Your task to perform on an android device: toggle javascript in the chrome app Image 0: 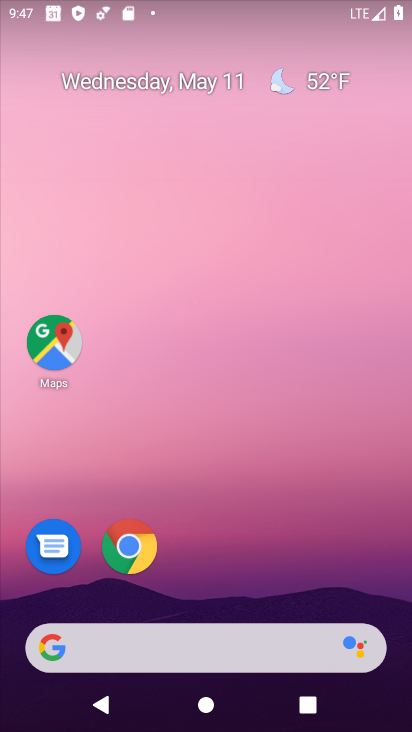
Step 0: click (131, 550)
Your task to perform on an android device: toggle javascript in the chrome app Image 1: 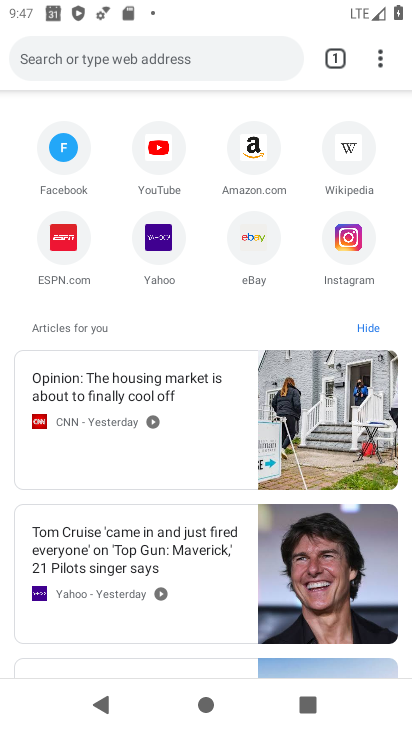
Step 1: drag from (378, 74) to (225, 556)
Your task to perform on an android device: toggle javascript in the chrome app Image 2: 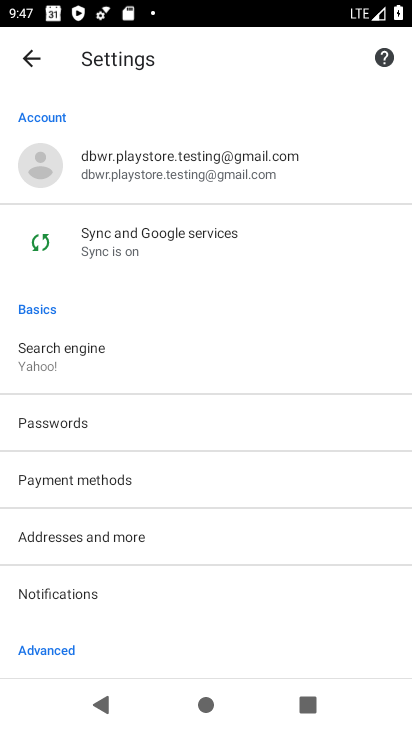
Step 2: drag from (96, 557) to (56, 0)
Your task to perform on an android device: toggle javascript in the chrome app Image 3: 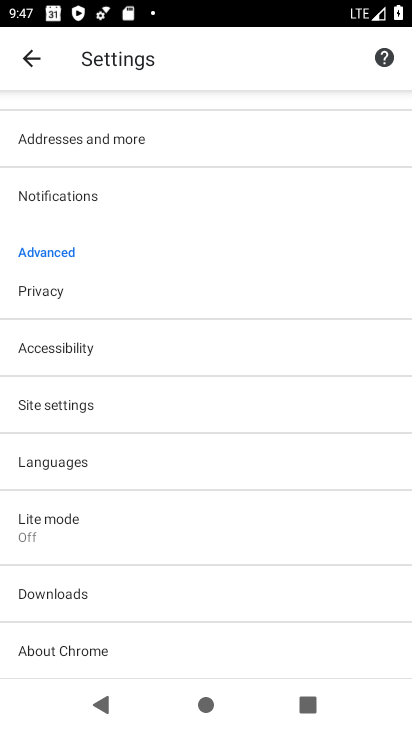
Step 3: click (94, 411)
Your task to perform on an android device: toggle javascript in the chrome app Image 4: 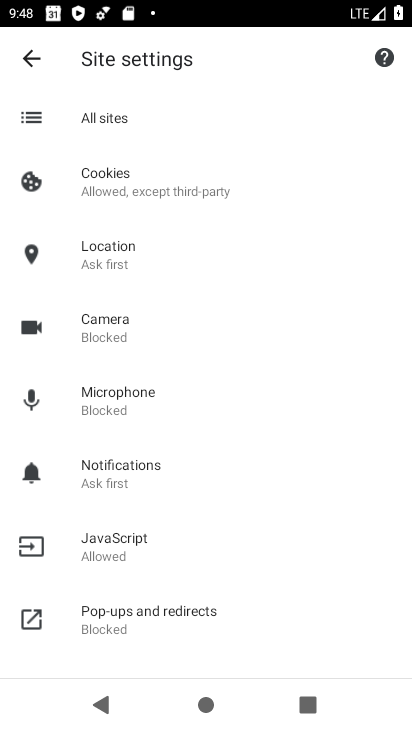
Step 4: click (127, 533)
Your task to perform on an android device: toggle javascript in the chrome app Image 5: 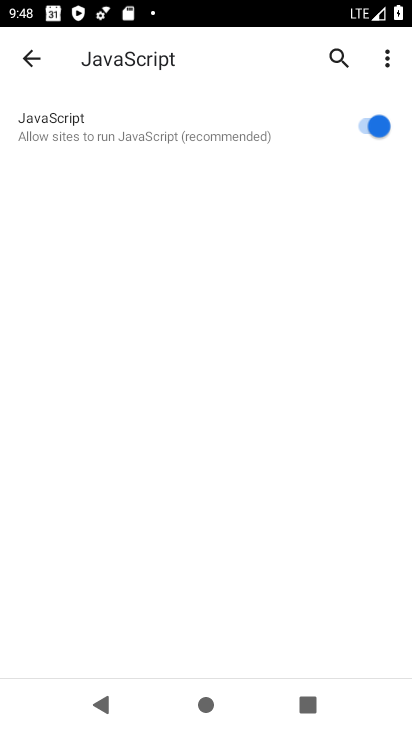
Step 5: click (362, 117)
Your task to perform on an android device: toggle javascript in the chrome app Image 6: 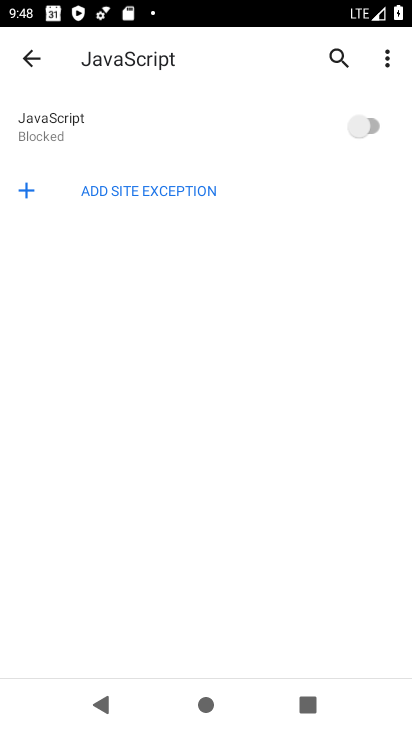
Step 6: task complete